Your task to perform on an android device: Open calendar and show me the first week of next month Image 0: 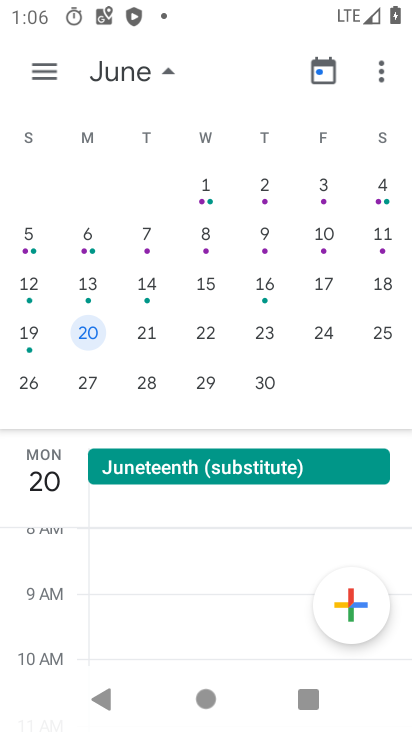
Step 0: click (85, 381)
Your task to perform on an android device: Open calendar and show me the first week of next month Image 1: 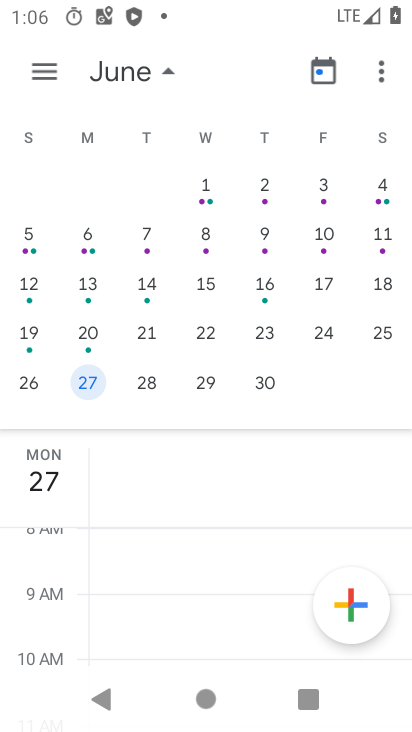
Step 1: task complete